Your task to perform on an android device: toggle data saver in the chrome app Image 0: 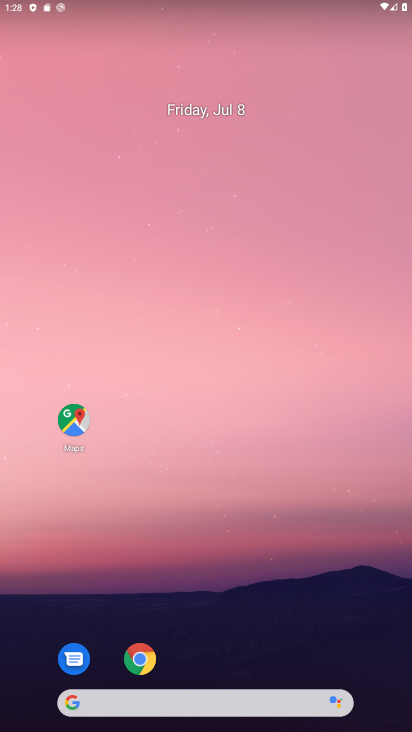
Step 0: drag from (280, 606) to (209, 458)
Your task to perform on an android device: toggle data saver in the chrome app Image 1: 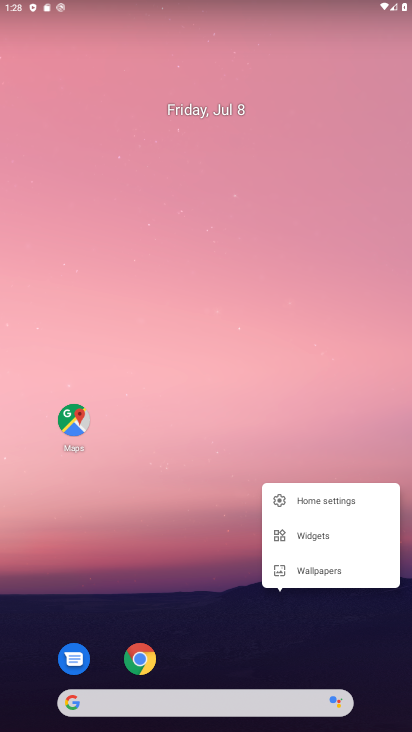
Step 1: click (220, 592)
Your task to perform on an android device: toggle data saver in the chrome app Image 2: 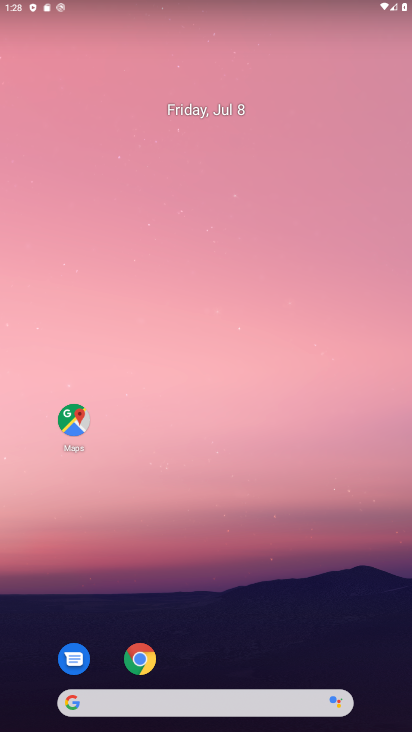
Step 2: drag from (246, 633) to (214, 167)
Your task to perform on an android device: toggle data saver in the chrome app Image 3: 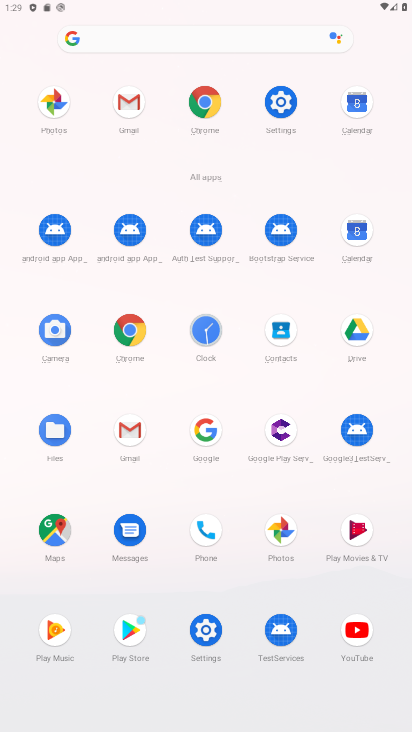
Step 3: click (126, 325)
Your task to perform on an android device: toggle data saver in the chrome app Image 4: 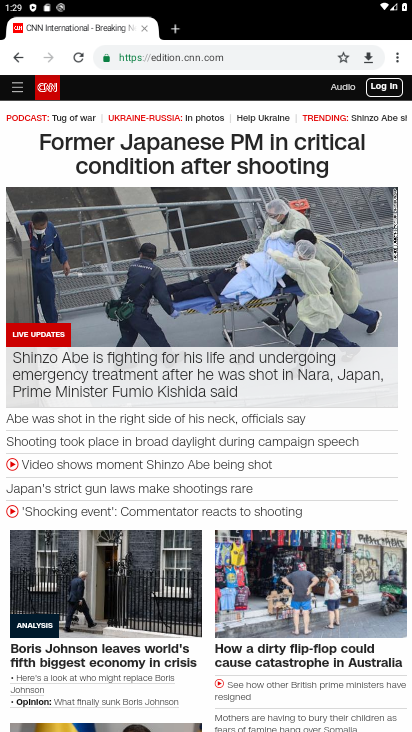
Step 4: click (397, 50)
Your task to perform on an android device: toggle data saver in the chrome app Image 5: 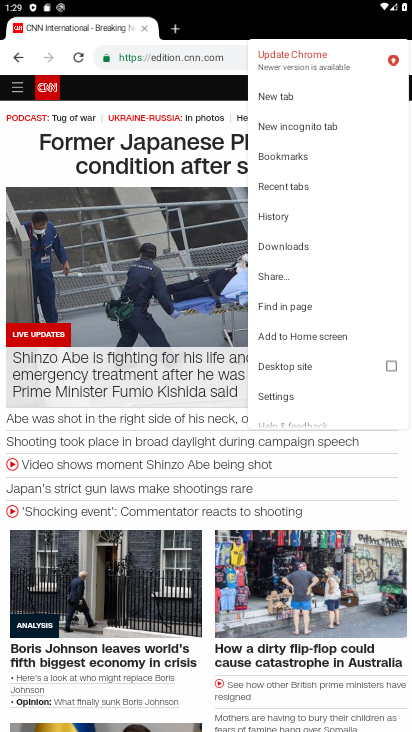
Step 5: click (318, 395)
Your task to perform on an android device: toggle data saver in the chrome app Image 6: 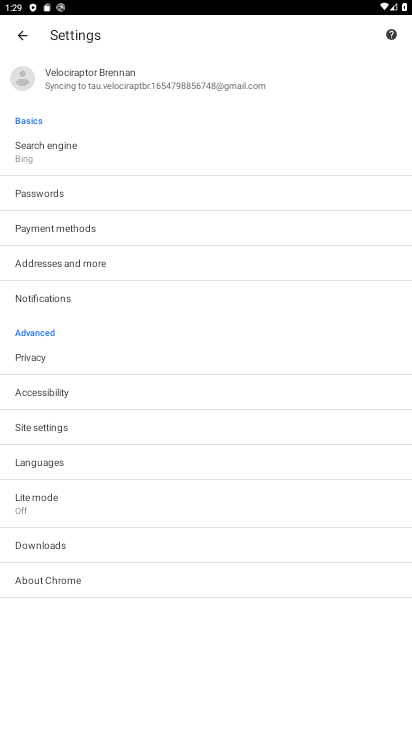
Step 6: click (66, 430)
Your task to perform on an android device: toggle data saver in the chrome app Image 7: 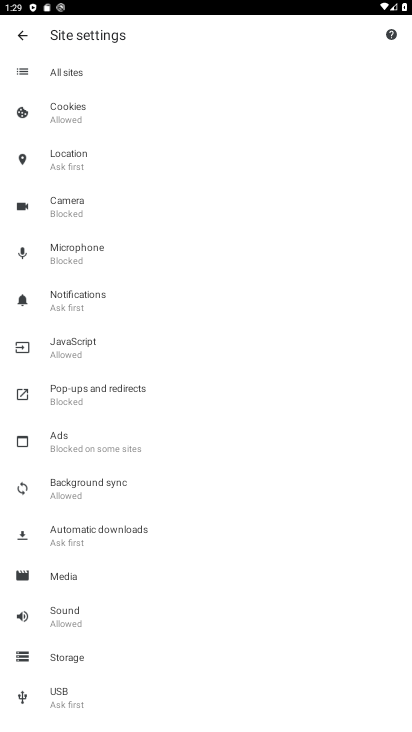
Step 7: click (21, 31)
Your task to perform on an android device: toggle data saver in the chrome app Image 8: 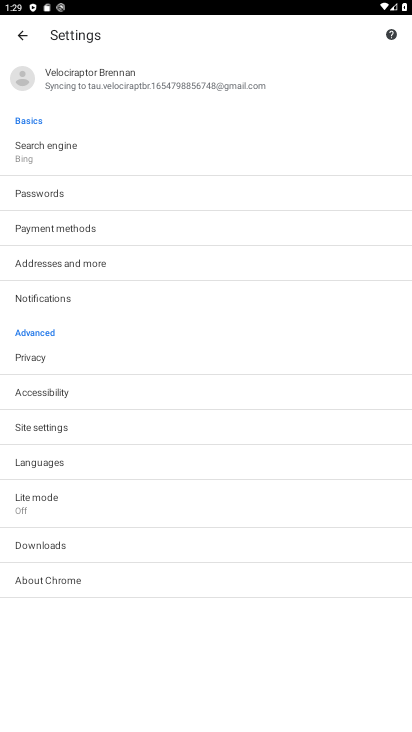
Step 8: click (48, 513)
Your task to perform on an android device: toggle data saver in the chrome app Image 9: 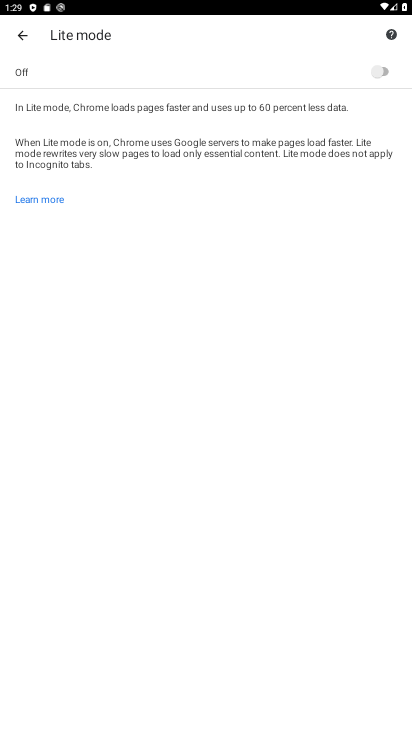
Step 9: click (383, 69)
Your task to perform on an android device: toggle data saver in the chrome app Image 10: 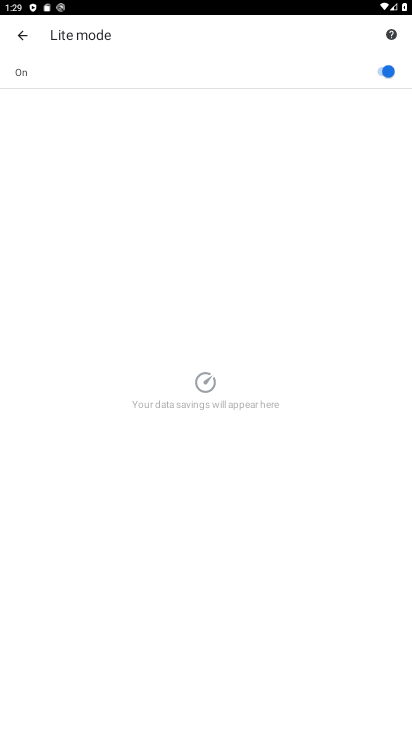
Step 10: task complete